Your task to perform on an android device: choose inbox layout in the gmail app Image 0: 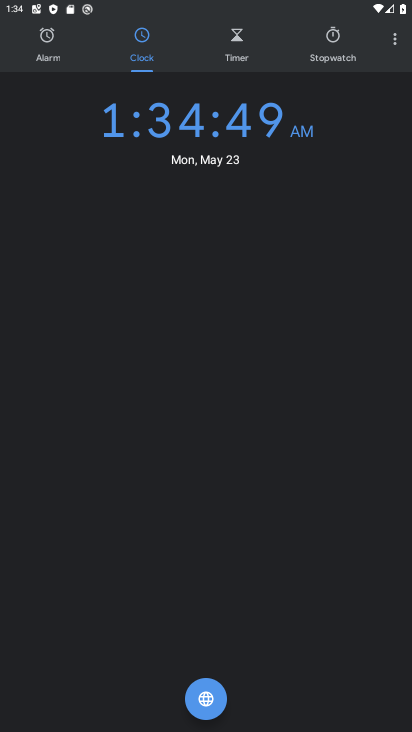
Step 0: press back button
Your task to perform on an android device: choose inbox layout in the gmail app Image 1: 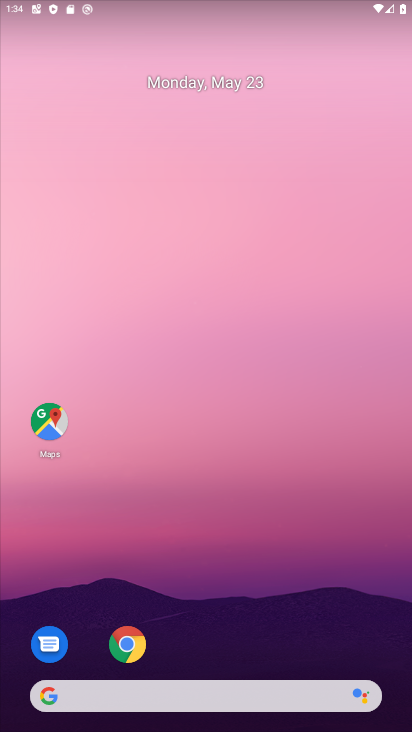
Step 1: drag from (206, 583) to (200, 55)
Your task to perform on an android device: choose inbox layout in the gmail app Image 2: 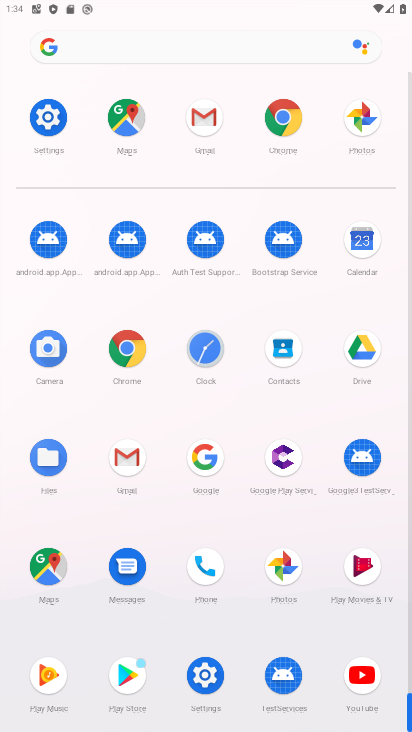
Step 2: drag from (8, 646) to (12, 176)
Your task to perform on an android device: choose inbox layout in the gmail app Image 3: 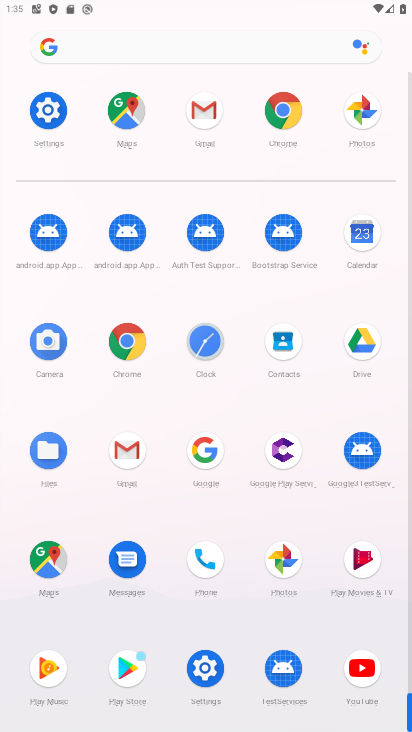
Step 3: click (127, 340)
Your task to perform on an android device: choose inbox layout in the gmail app Image 4: 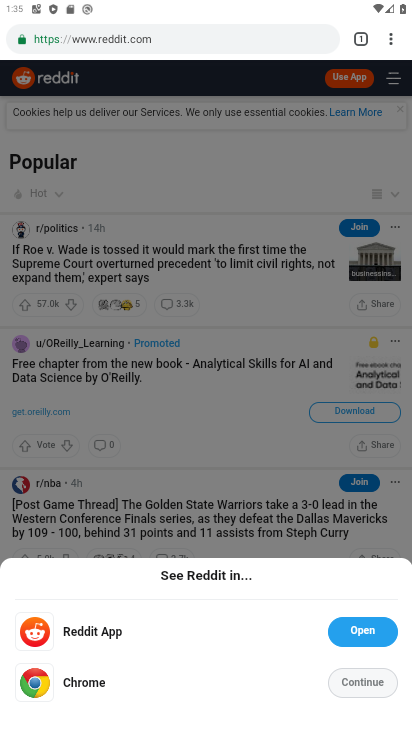
Step 4: drag from (388, 40) to (250, 467)
Your task to perform on an android device: choose inbox layout in the gmail app Image 5: 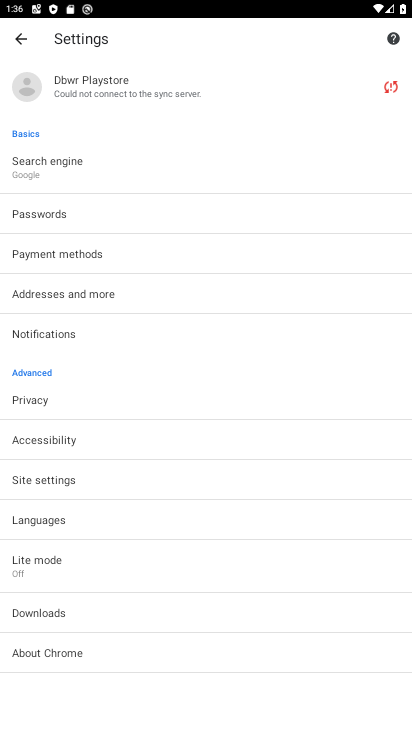
Step 5: click (82, 480)
Your task to perform on an android device: choose inbox layout in the gmail app Image 6: 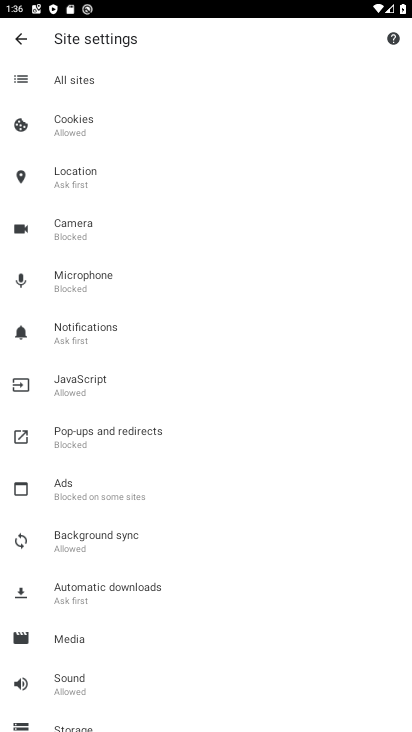
Step 6: click (23, 40)
Your task to perform on an android device: choose inbox layout in the gmail app Image 7: 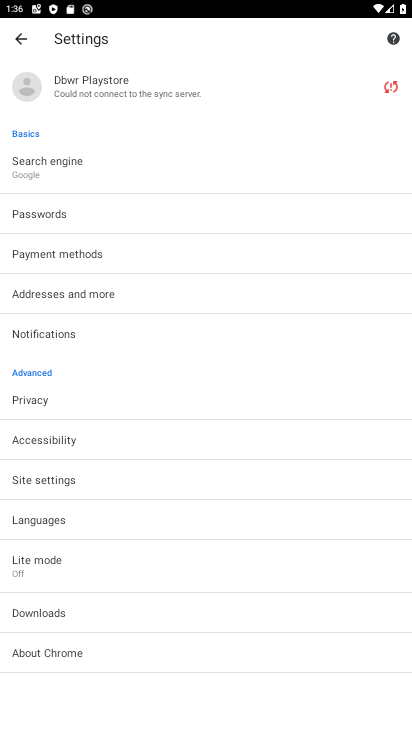
Step 7: click (21, 42)
Your task to perform on an android device: choose inbox layout in the gmail app Image 8: 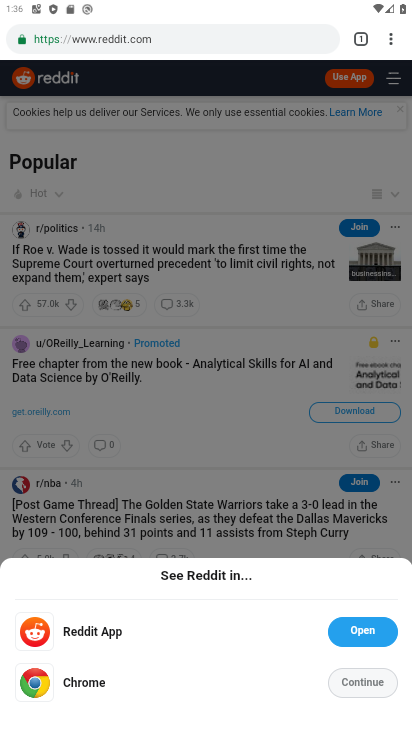
Step 8: drag from (387, 41) to (252, 462)
Your task to perform on an android device: choose inbox layout in the gmail app Image 9: 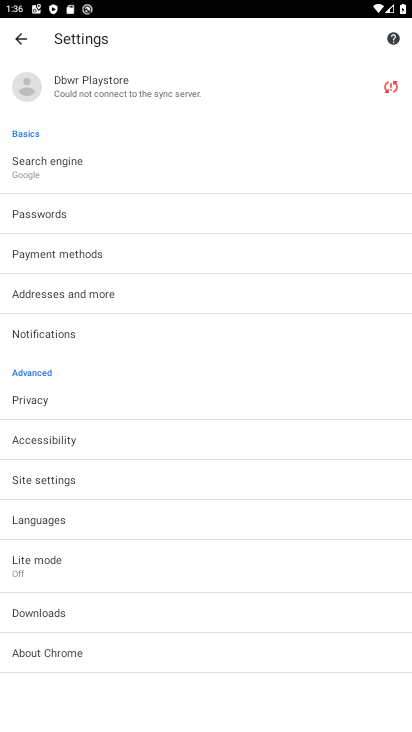
Step 9: click (71, 403)
Your task to perform on an android device: choose inbox layout in the gmail app Image 10: 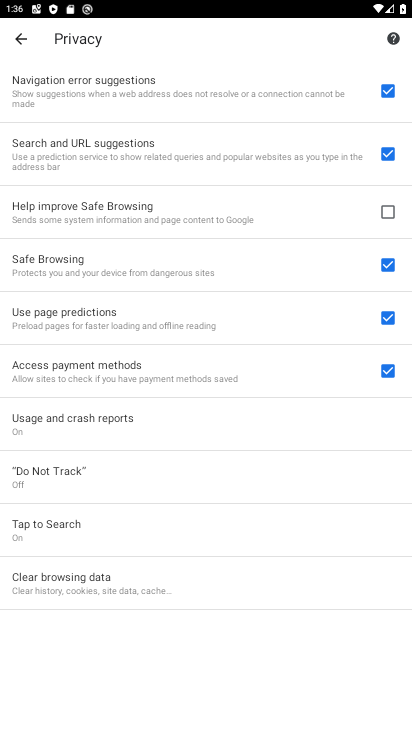
Step 10: click (30, 38)
Your task to perform on an android device: choose inbox layout in the gmail app Image 11: 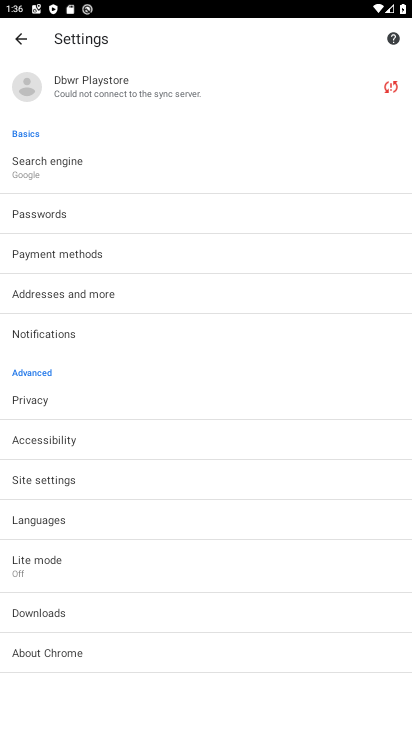
Step 11: click (68, 480)
Your task to perform on an android device: choose inbox layout in the gmail app Image 12: 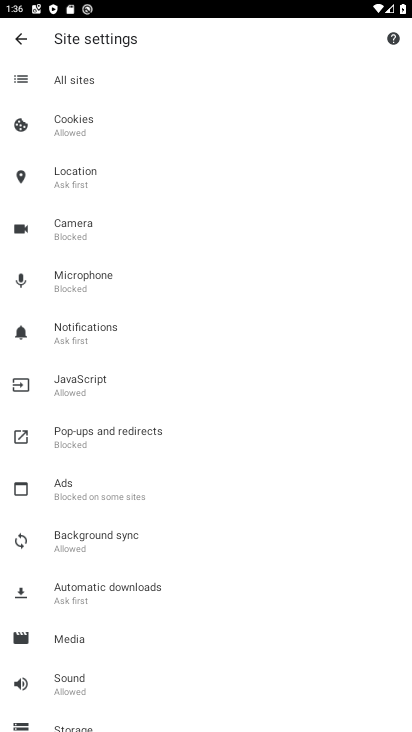
Step 12: task complete